Your task to perform on an android device: turn smart compose on in the gmail app Image 0: 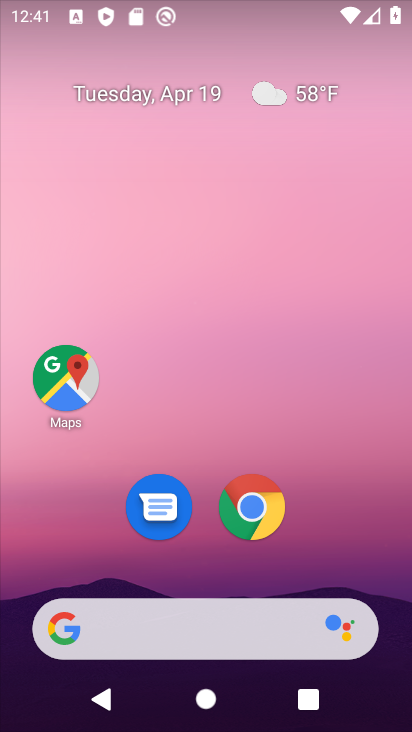
Step 0: drag from (198, 565) to (226, 69)
Your task to perform on an android device: turn smart compose on in the gmail app Image 1: 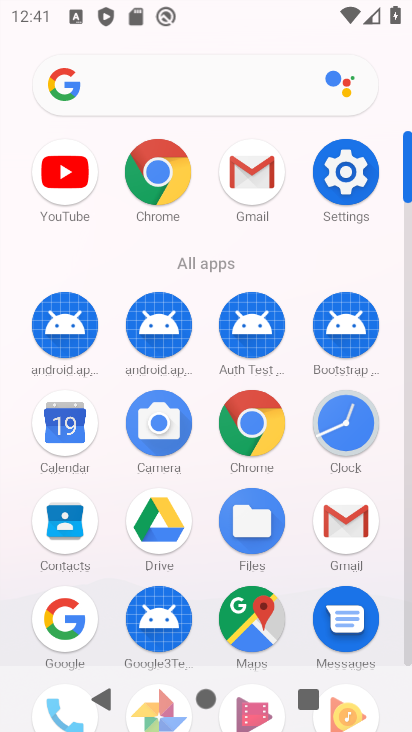
Step 1: click (342, 514)
Your task to perform on an android device: turn smart compose on in the gmail app Image 2: 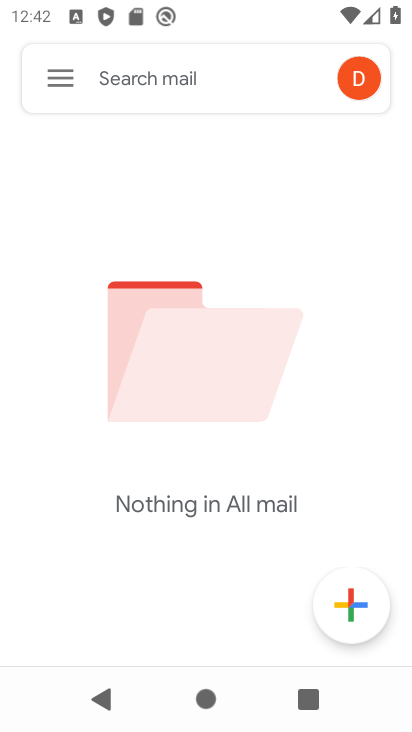
Step 2: click (55, 78)
Your task to perform on an android device: turn smart compose on in the gmail app Image 3: 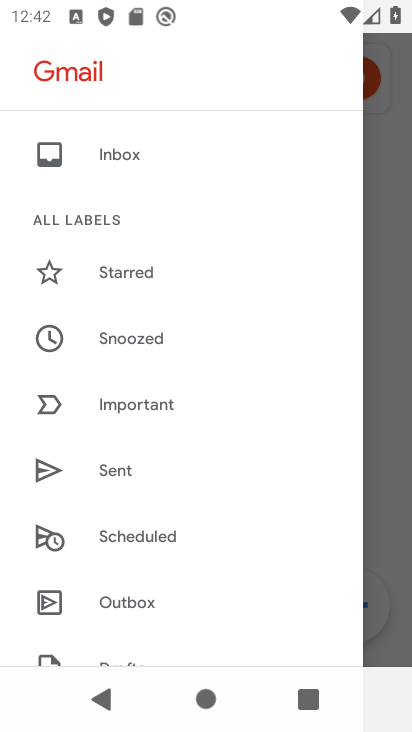
Step 3: drag from (218, 587) to (215, 157)
Your task to perform on an android device: turn smart compose on in the gmail app Image 4: 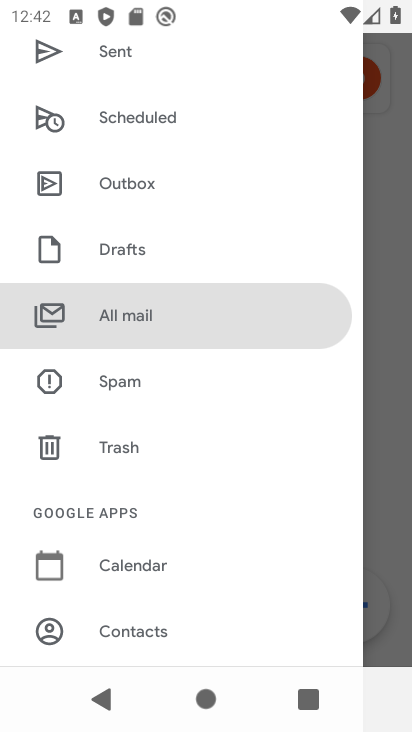
Step 4: drag from (206, 324) to (200, 218)
Your task to perform on an android device: turn smart compose on in the gmail app Image 5: 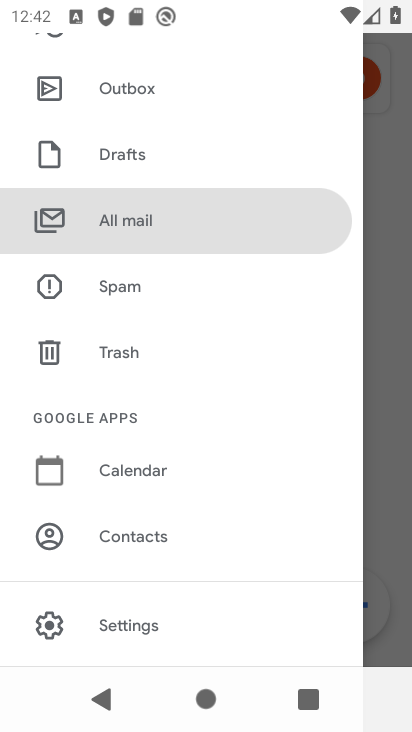
Step 5: click (143, 608)
Your task to perform on an android device: turn smart compose on in the gmail app Image 6: 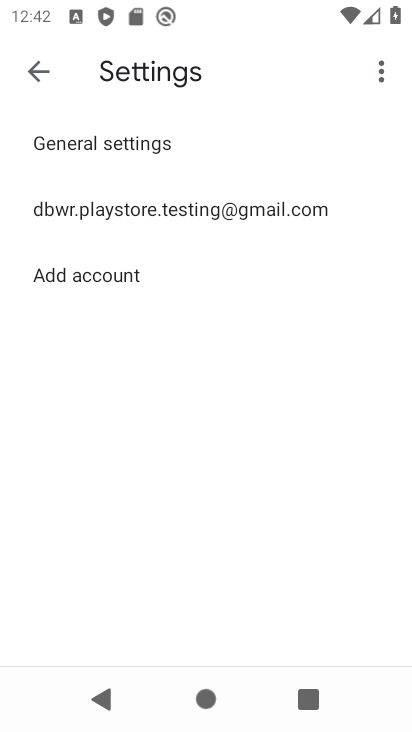
Step 6: click (181, 217)
Your task to perform on an android device: turn smart compose on in the gmail app Image 7: 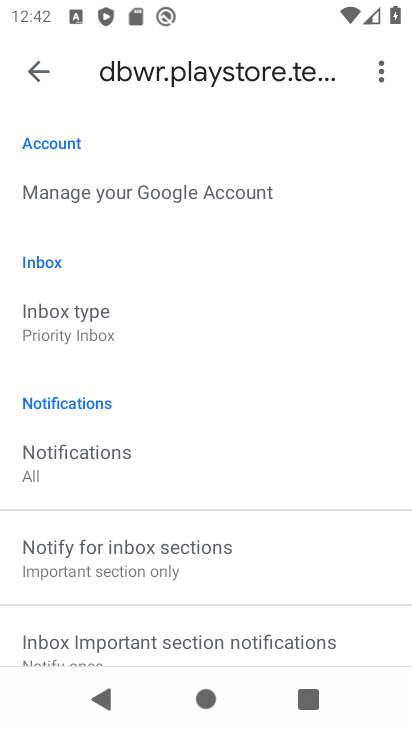
Step 7: task complete